Your task to perform on an android device: turn on the 12-hour format for clock Image 0: 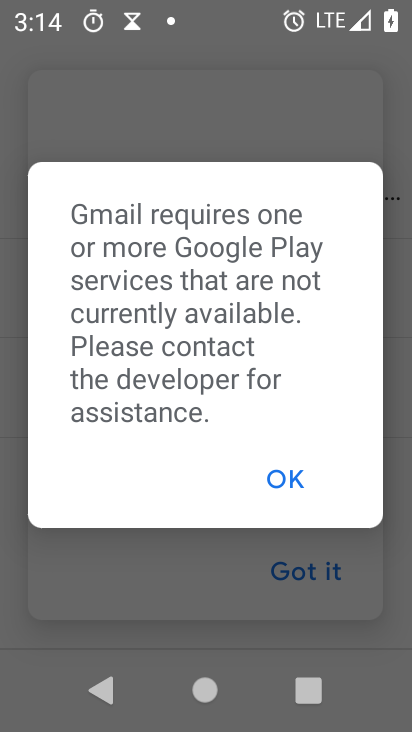
Step 0: press home button
Your task to perform on an android device: turn on the 12-hour format for clock Image 1: 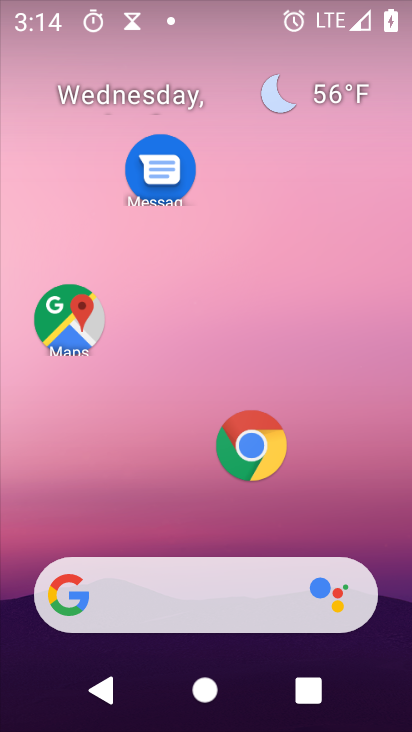
Step 1: drag from (13, 606) to (290, 74)
Your task to perform on an android device: turn on the 12-hour format for clock Image 2: 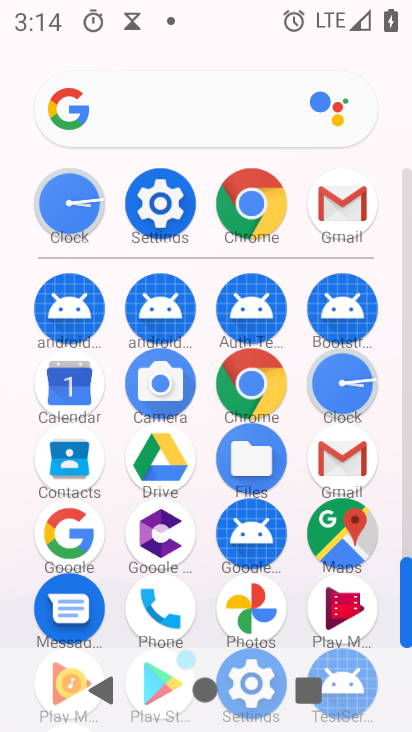
Step 2: click (54, 205)
Your task to perform on an android device: turn on the 12-hour format for clock Image 3: 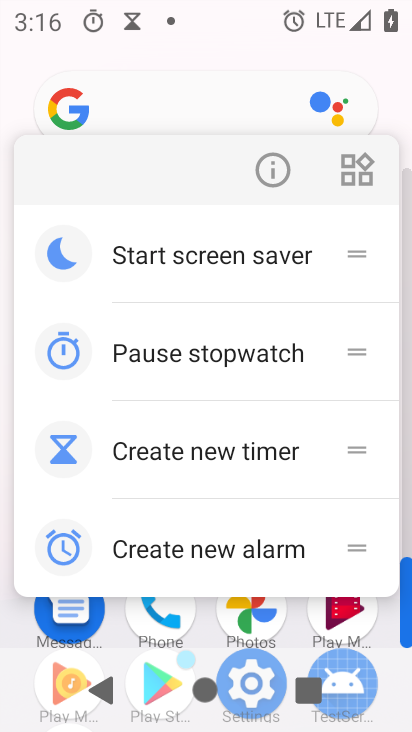
Step 3: press back button
Your task to perform on an android device: turn on the 12-hour format for clock Image 4: 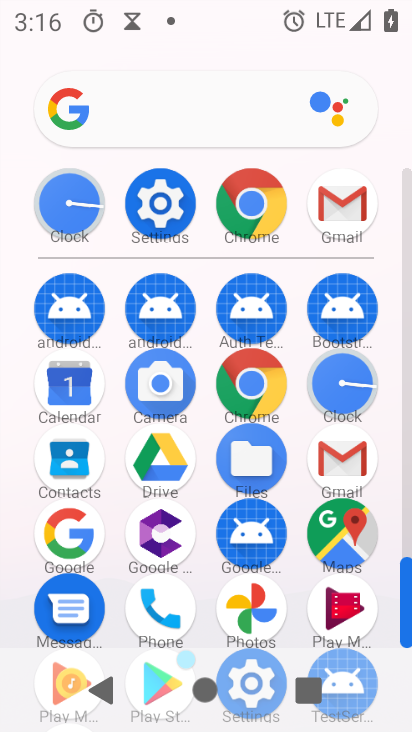
Step 4: click (333, 395)
Your task to perform on an android device: turn on the 12-hour format for clock Image 5: 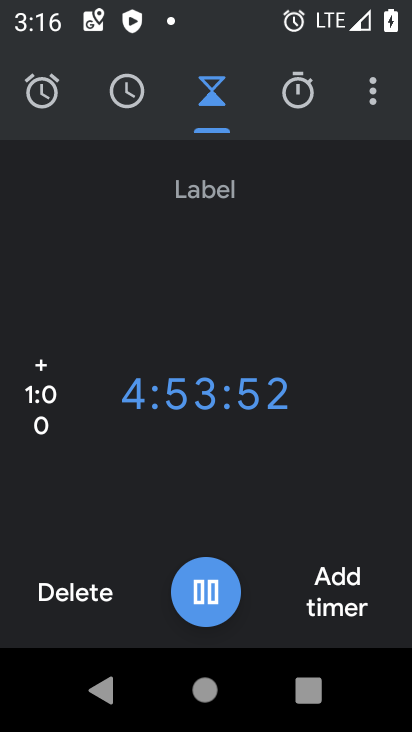
Step 5: click (381, 96)
Your task to perform on an android device: turn on the 12-hour format for clock Image 6: 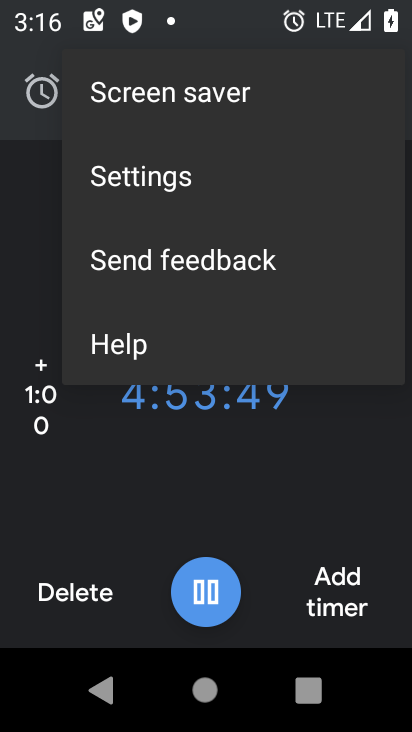
Step 6: click (160, 185)
Your task to perform on an android device: turn on the 12-hour format for clock Image 7: 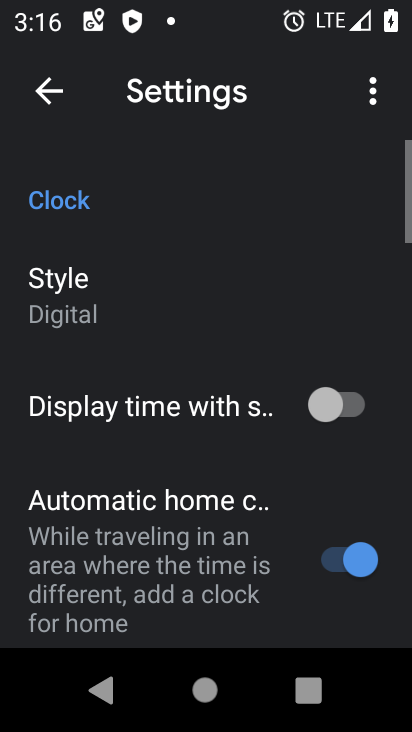
Step 7: drag from (0, 554) to (170, 162)
Your task to perform on an android device: turn on the 12-hour format for clock Image 8: 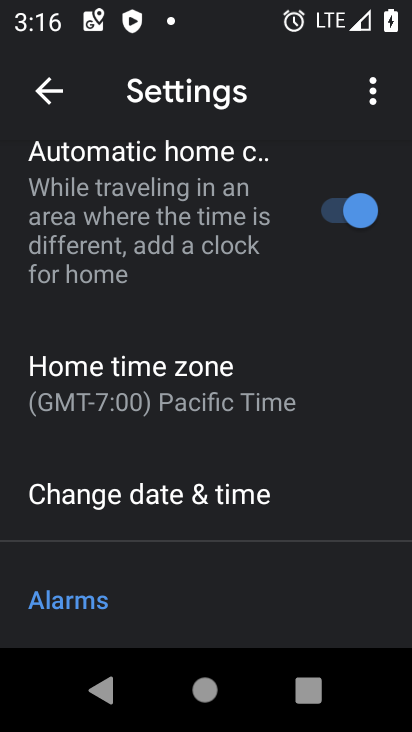
Step 8: click (88, 484)
Your task to perform on an android device: turn on the 12-hour format for clock Image 9: 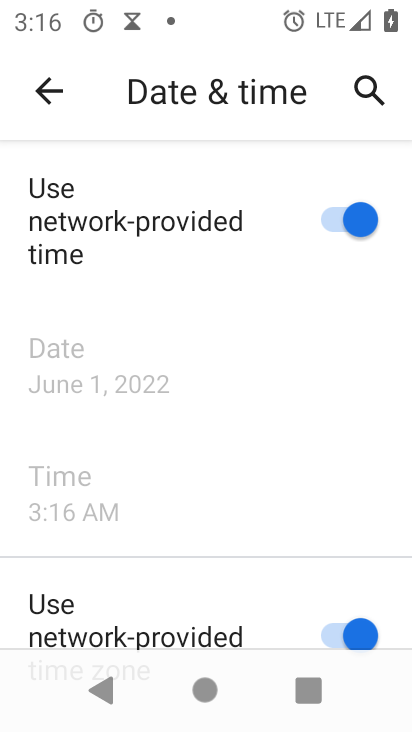
Step 9: task complete